Your task to perform on an android device: add a contact in the contacts app Image 0: 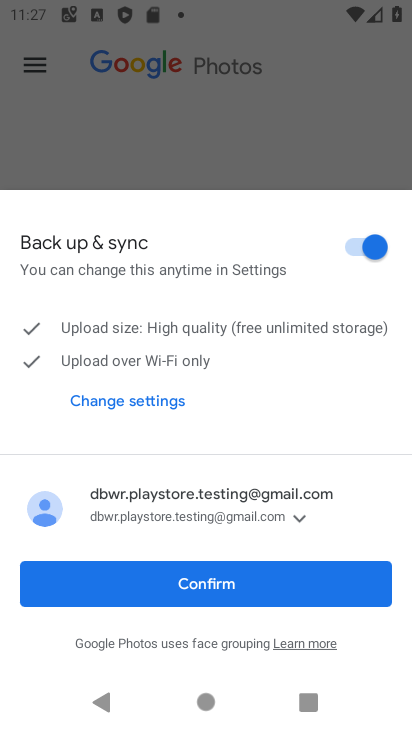
Step 0: press home button
Your task to perform on an android device: add a contact in the contacts app Image 1: 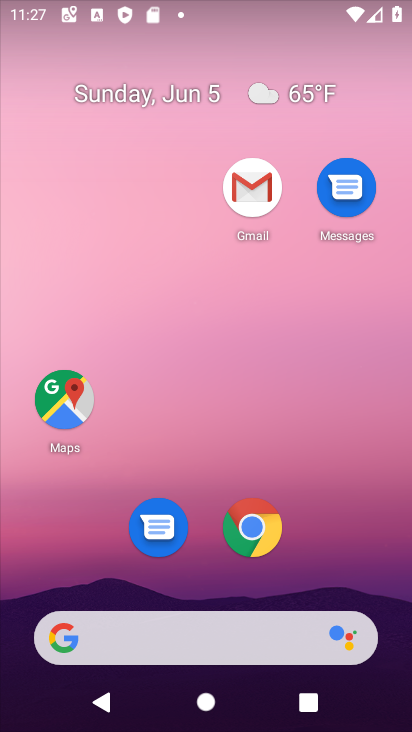
Step 1: drag from (340, 563) to (352, 327)
Your task to perform on an android device: add a contact in the contacts app Image 2: 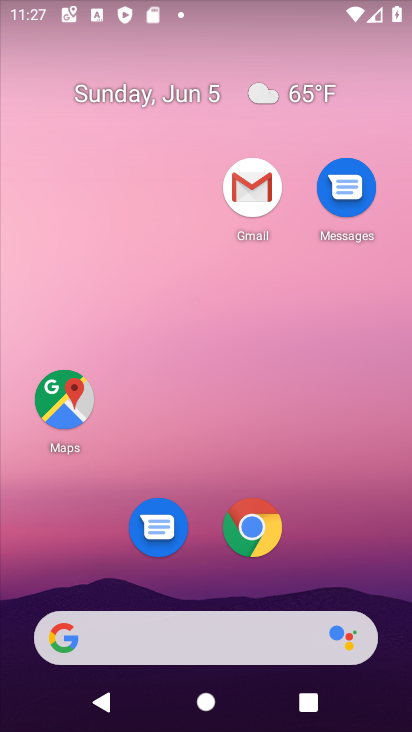
Step 2: drag from (371, 600) to (360, 504)
Your task to perform on an android device: add a contact in the contacts app Image 3: 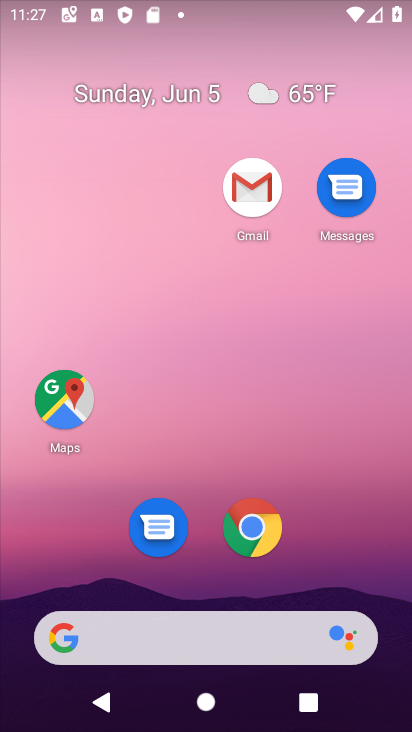
Step 3: drag from (375, 565) to (309, 103)
Your task to perform on an android device: add a contact in the contacts app Image 4: 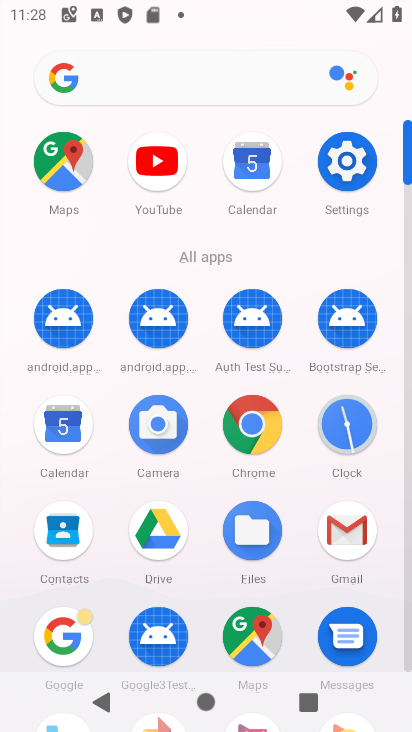
Step 4: click (62, 539)
Your task to perform on an android device: add a contact in the contacts app Image 5: 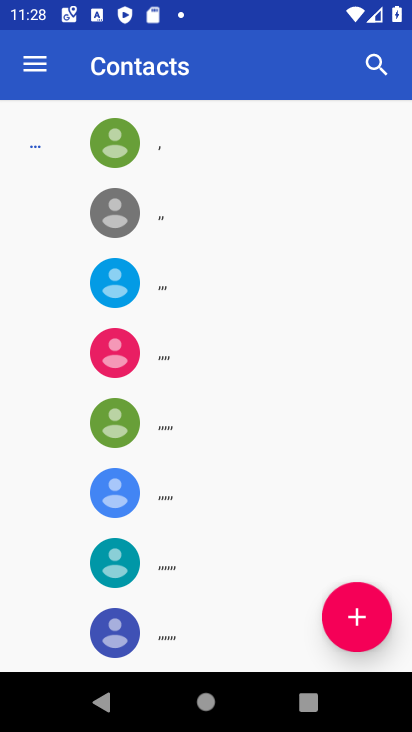
Step 5: click (362, 613)
Your task to perform on an android device: add a contact in the contacts app Image 6: 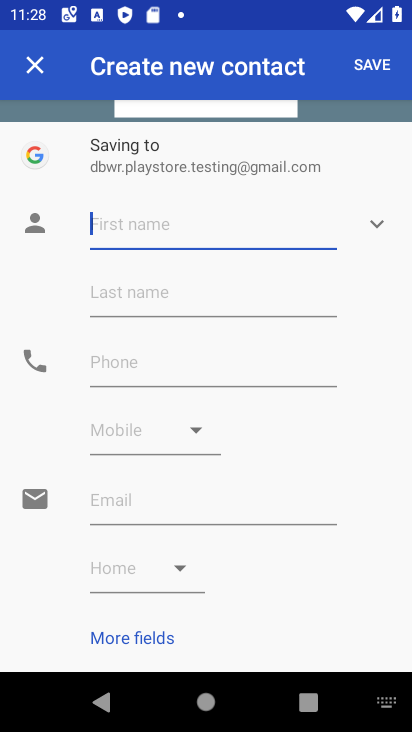
Step 6: type "shs"
Your task to perform on an android device: add a contact in the contacts app Image 7: 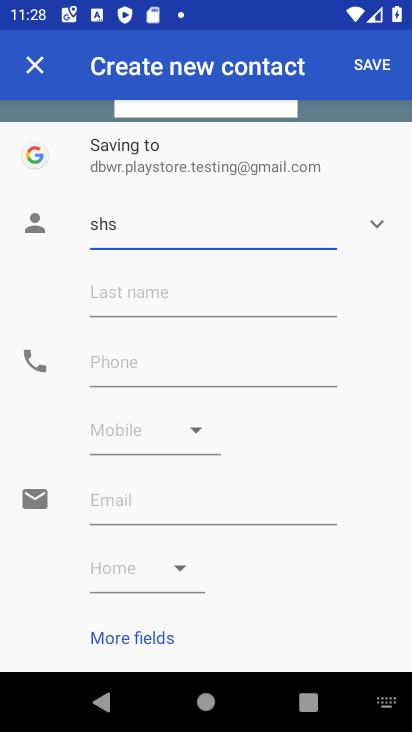
Step 7: click (203, 374)
Your task to perform on an android device: add a contact in the contacts app Image 8: 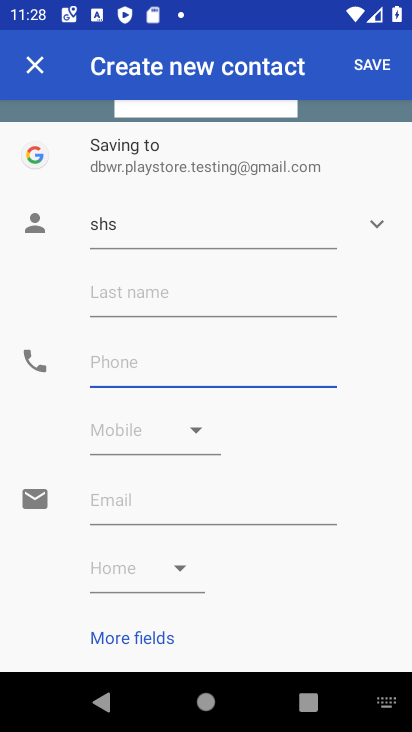
Step 8: type "770398998"
Your task to perform on an android device: add a contact in the contacts app Image 9: 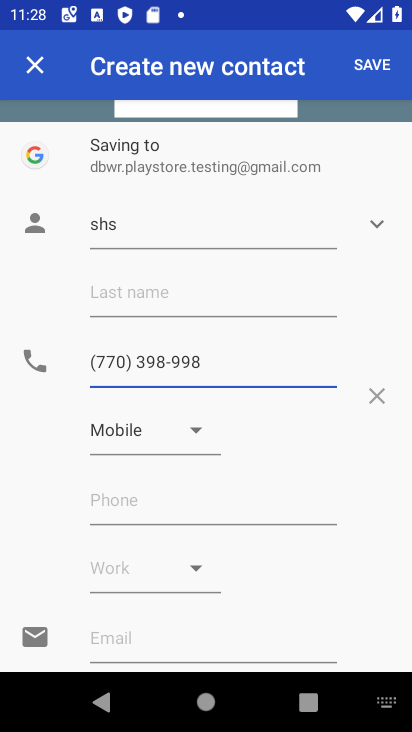
Step 9: click (373, 66)
Your task to perform on an android device: add a contact in the contacts app Image 10: 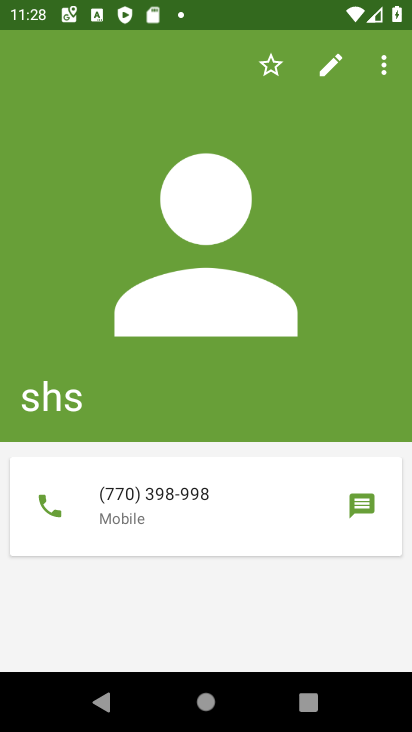
Step 10: task complete